Your task to perform on an android device: toggle airplane mode Image 0: 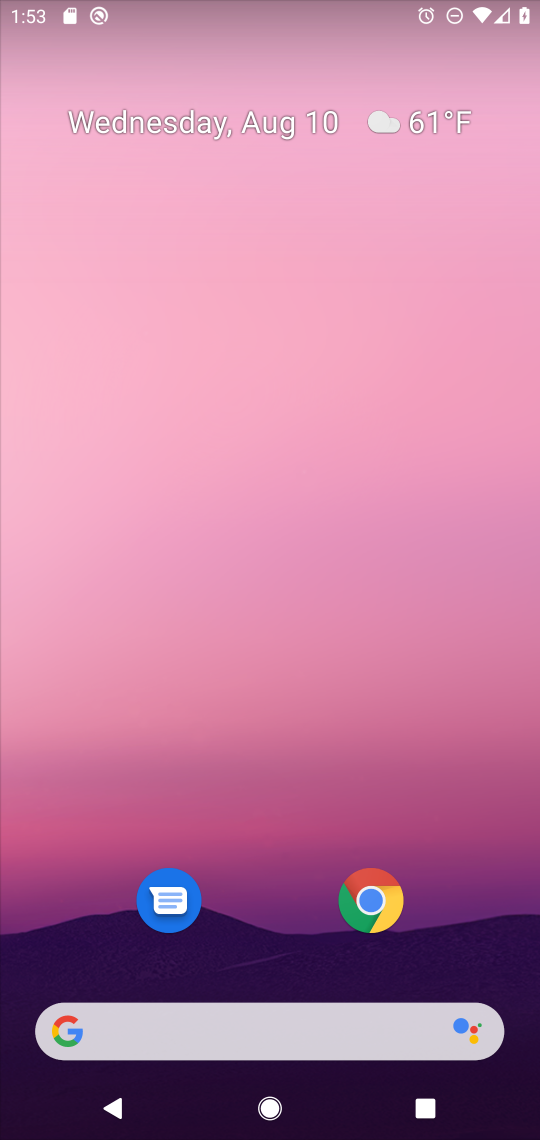
Step 0: drag from (274, 937) to (302, 19)
Your task to perform on an android device: toggle airplane mode Image 1: 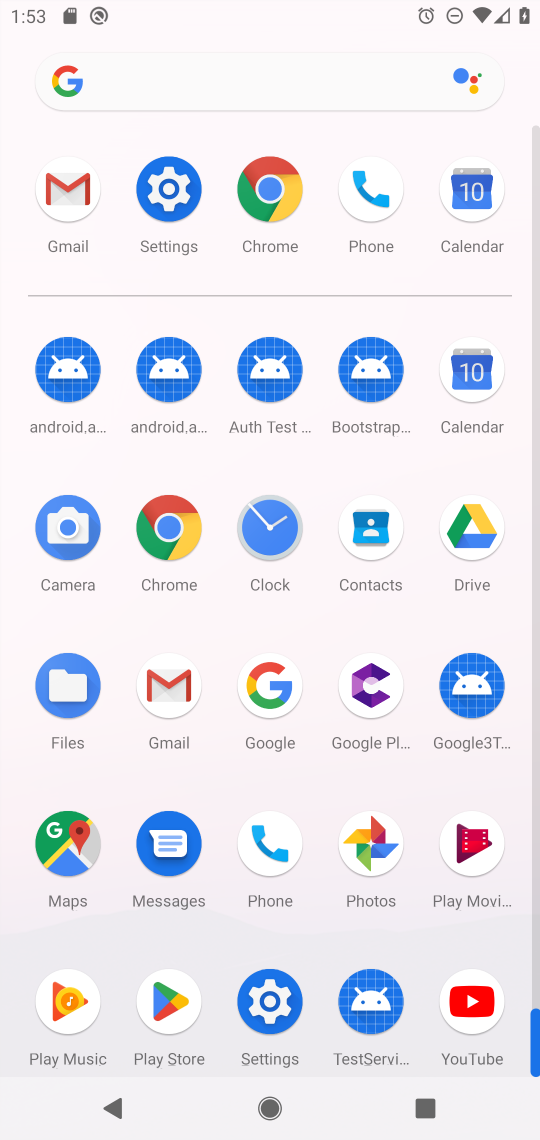
Step 1: click (180, 188)
Your task to perform on an android device: toggle airplane mode Image 2: 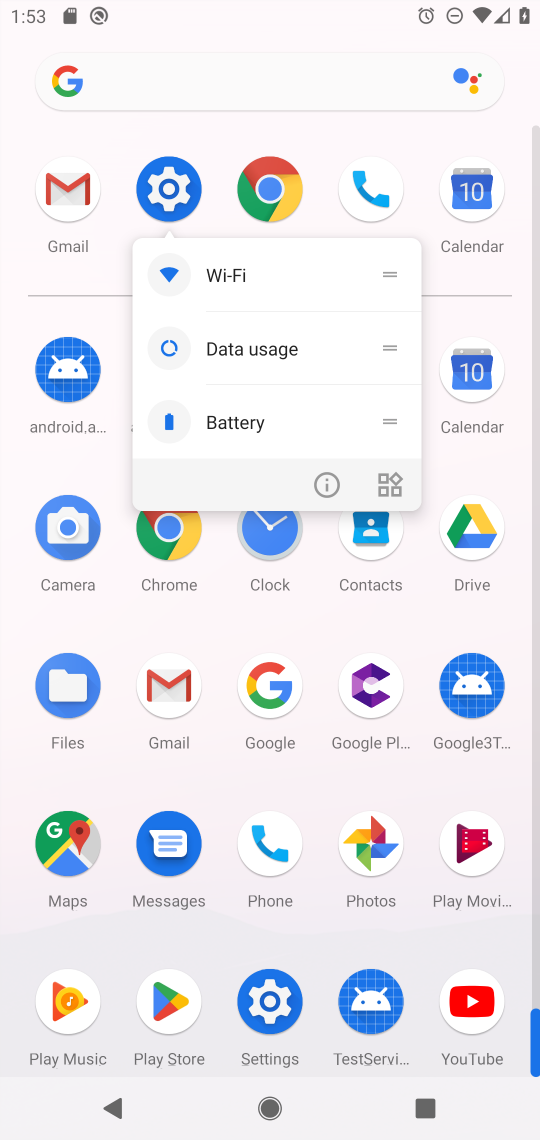
Step 2: click (170, 186)
Your task to perform on an android device: toggle airplane mode Image 3: 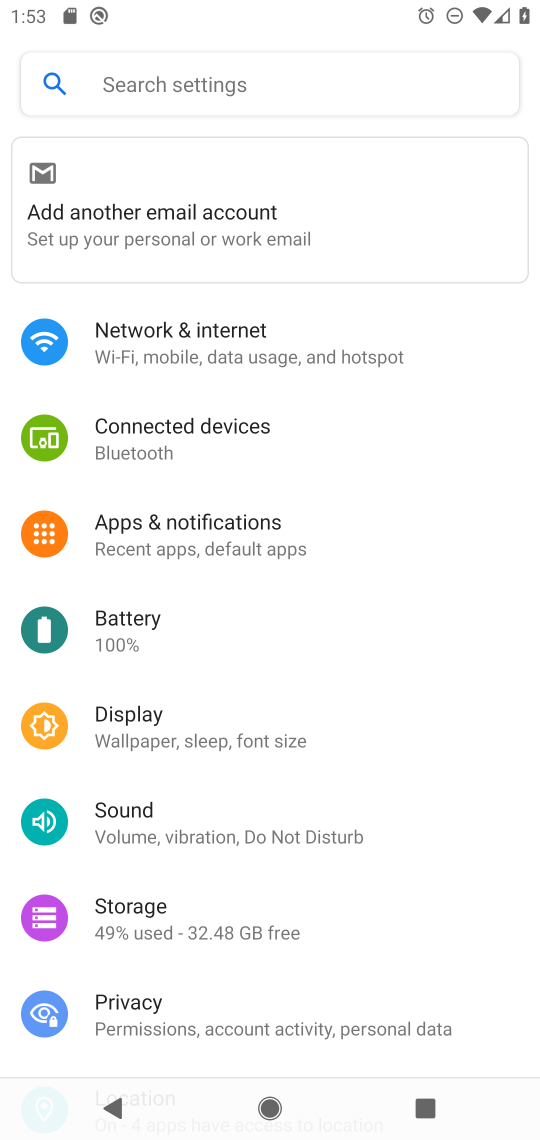
Step 3: click (182, 333)
Your task to perform on an android device: toggle airplane mode Image 4: 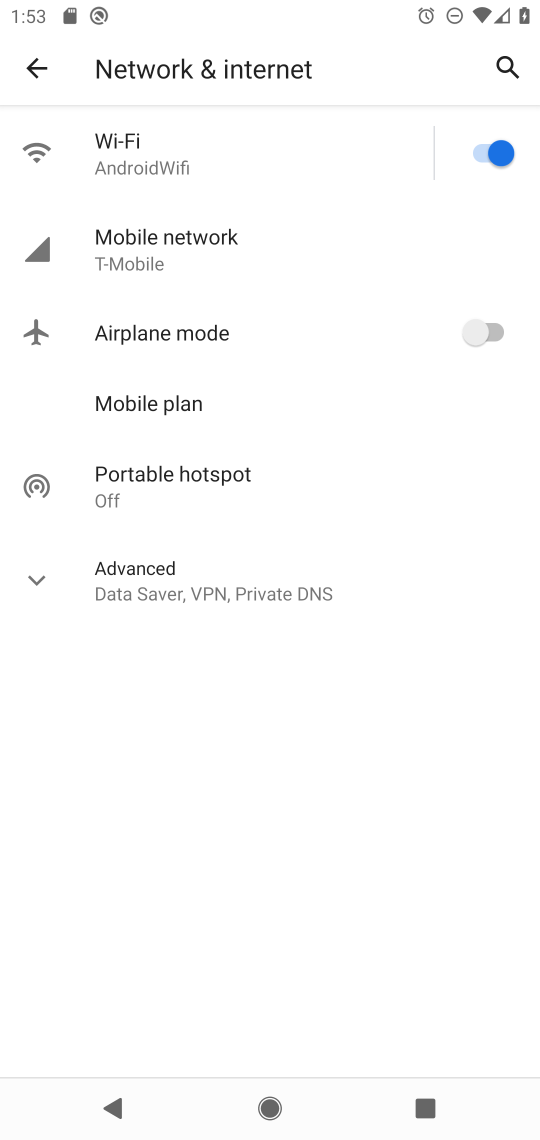
Step 4: click (484, 327)
Your task to perform on an android device: toggle airplane mode Image 5: 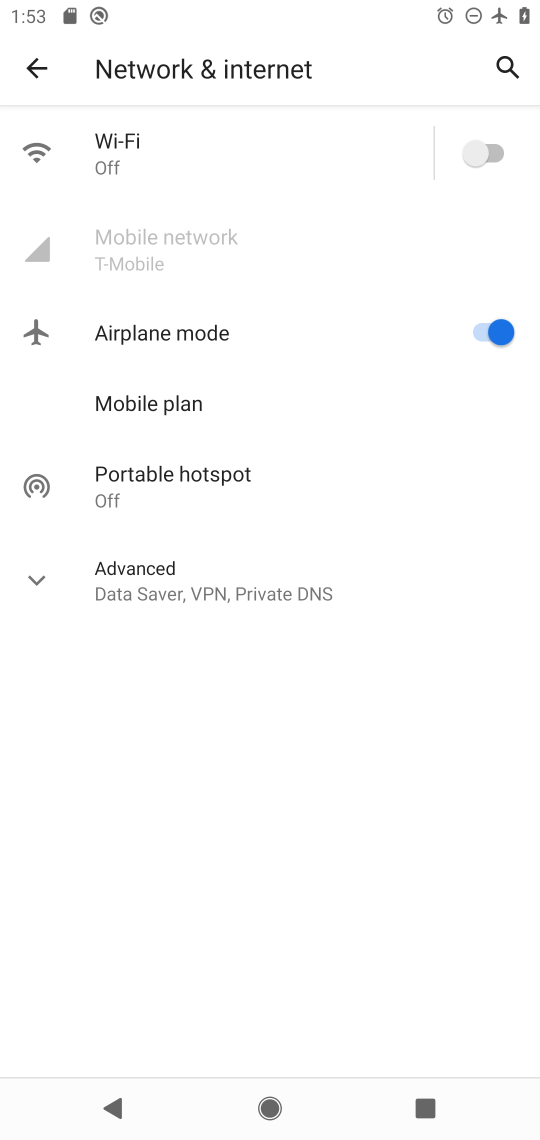
Step 5: task complete